Your task to perform on an android device: turn pop-ups on in chrome Image 0: 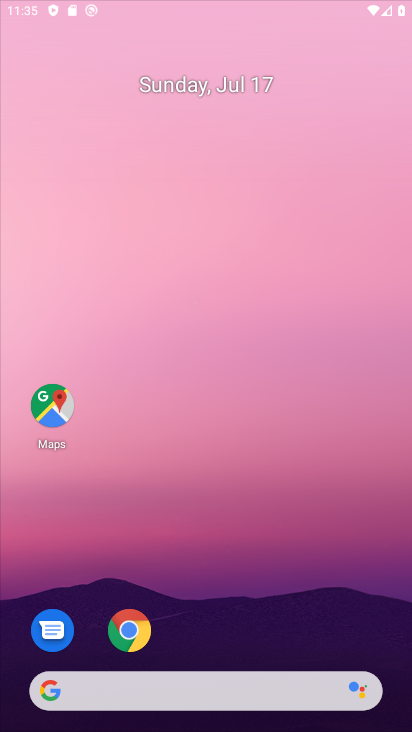
Step 0: click (201, 10)
Your task to perform on an android device: turn pop-ups on in chrome Image 1: 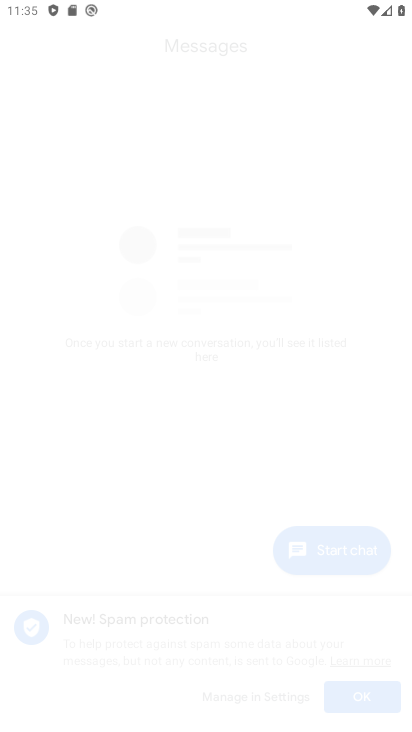
Step 1: drag from (255, 584) to (247, 56)
Your task to perform on an android device: turn pop-ups on in chrome Image 2: 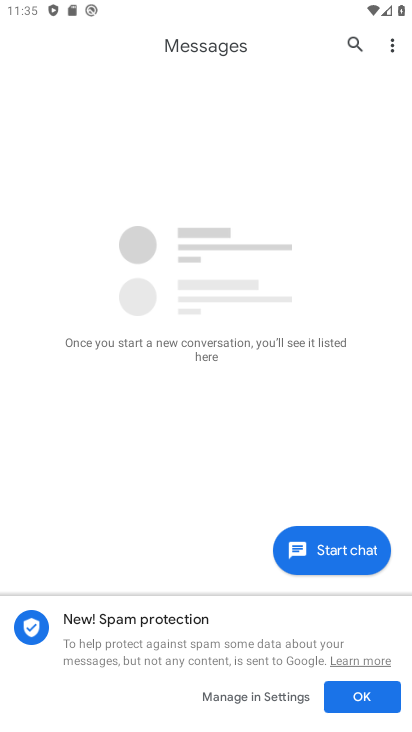
Step 2: press back button
Your task to perform on an android device: turn pop-ups on in chrome Image 3: 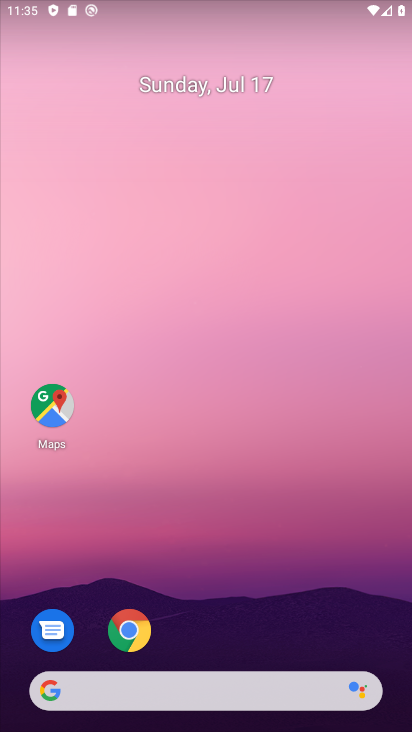
Step 3: drag from (179, 723) to (201, 145)
Your task to perform on an android device: turn pop-ups on in chrome Image 4: 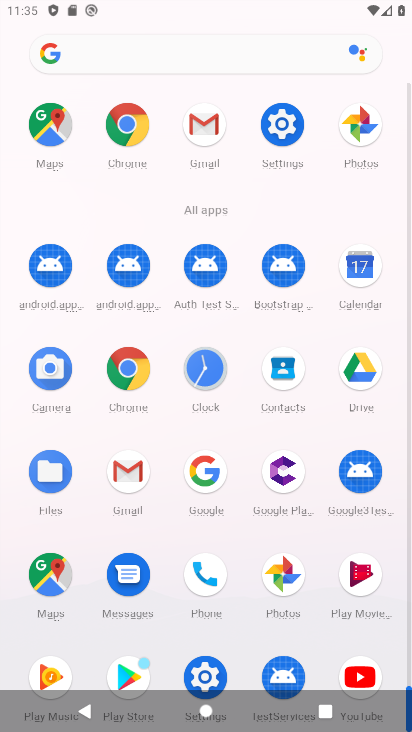
Step 4: click (127, 124)
Your task to perform on an android device: turn pop-ups on in chrome Image 5: 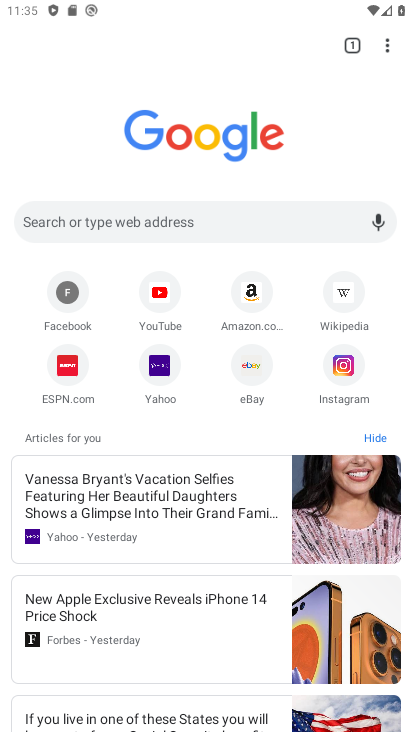
Step 5: drag from (386, 56) to (225, 384)
Your task to perform on an android device: turn pop-ups on in chrome Image 6: 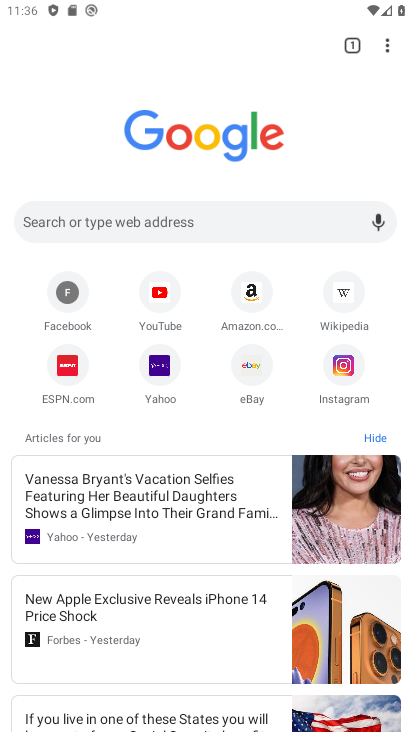
Step 6: click (229, 384)
Your task to perform on an android device: turn pop-ups on in chrome Image 7: 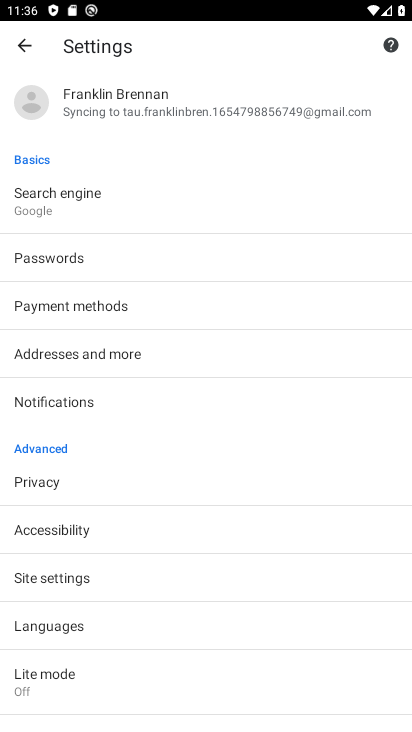
Step 7: click (46, 549)
Your task to perform on an android device: turn pop-ups on in chrome Image 8: 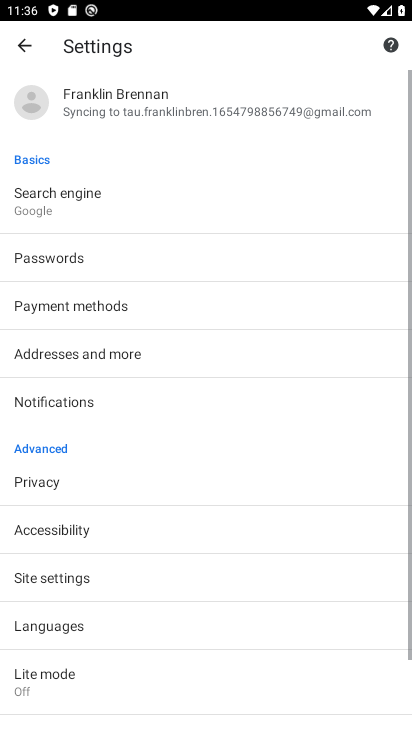
Step 8: click (35, 576)
Your task to perform on an android device: turn pop-ups on in chrome Image 9: 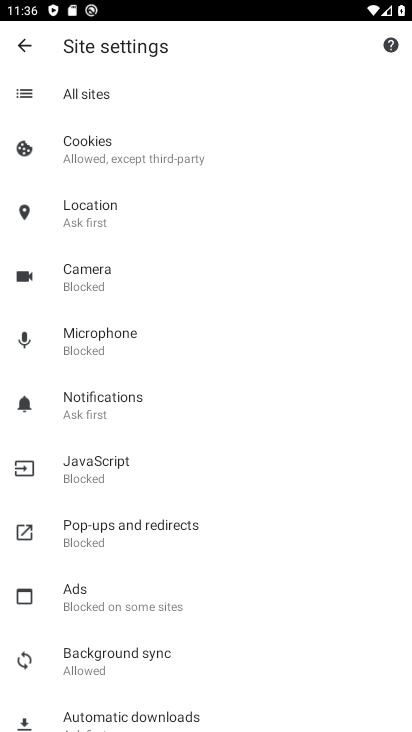
Step 9: click (100, 550)
Your task to perform on an android device: turn pop-ups on in chrome Image 10: 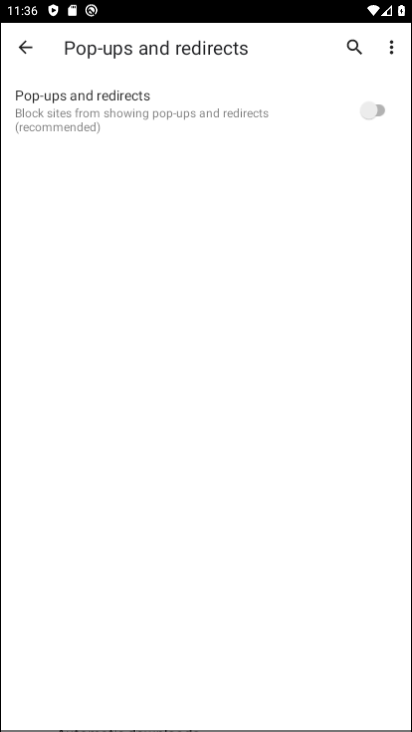
Step 10: click (100, 535)
Your task to perform on an android device: turn pop-ups on in chrome Image 11: 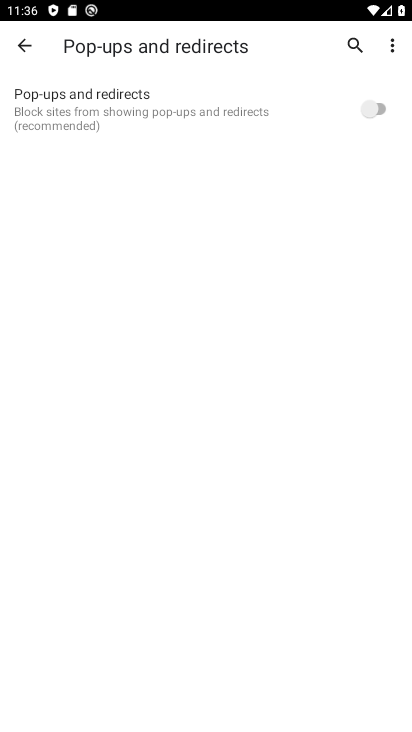
Step 11: click (365, 106)
Your task to perform on an android device: turn pop-ups on in chrome Image 12: 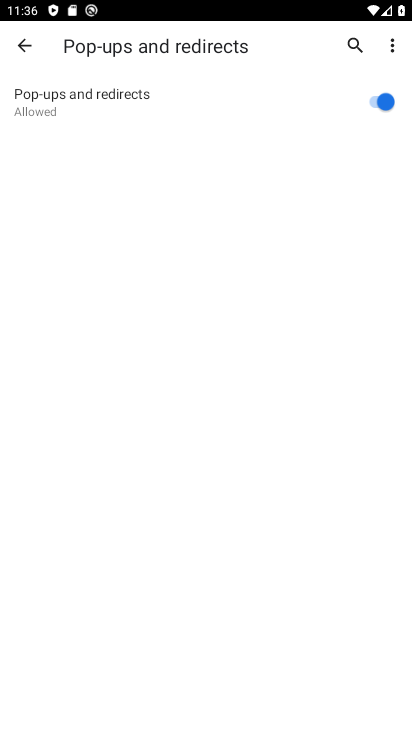
Step 12: task complete